Your task to perform on an android device: turn on bluetooth scan Image 0: 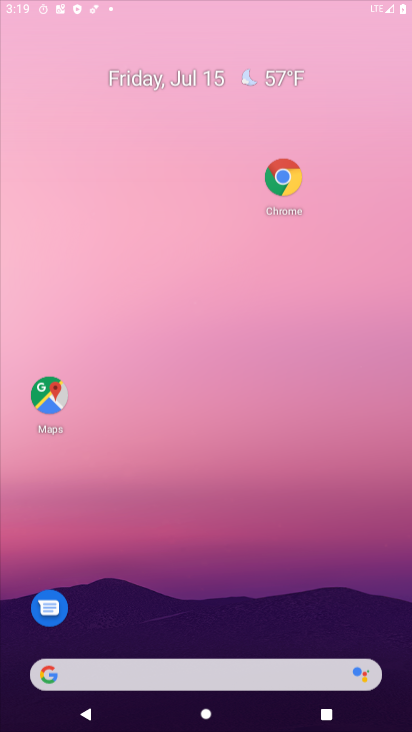
Step 0: press home button
Your task to perform on an android device: turn on bluetooth scan Image 1: 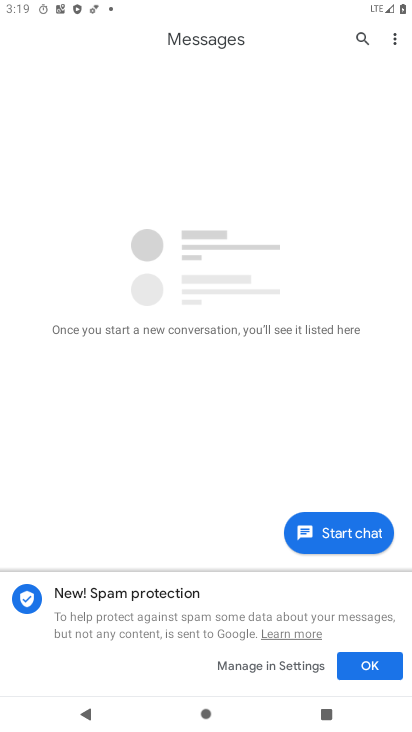
Step 1: click (216, 19)
Your task to perform on an android device: turn on bluetooth scan Image 2: 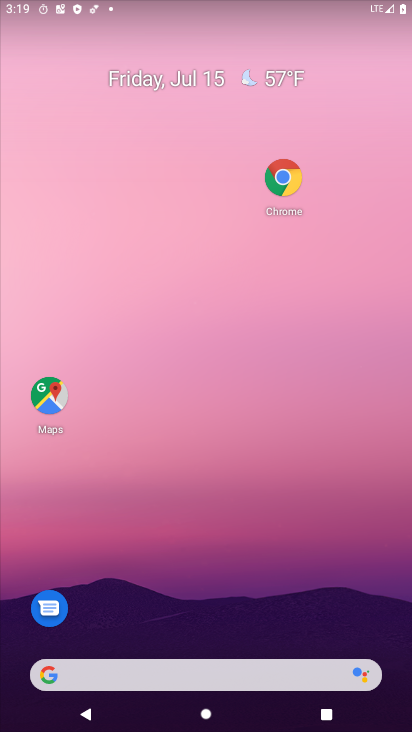
Step 2: drag from (250, 523) to (242, 61)
Your task to perform on an android device: turn on bluetooth scan Image 3: 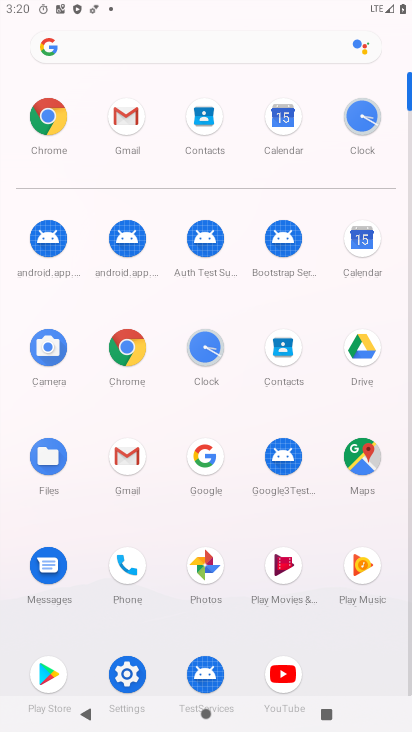
Step 3: click (139, 677)
Your task to perform on an android device: turn on bluetooth scan Image 4: 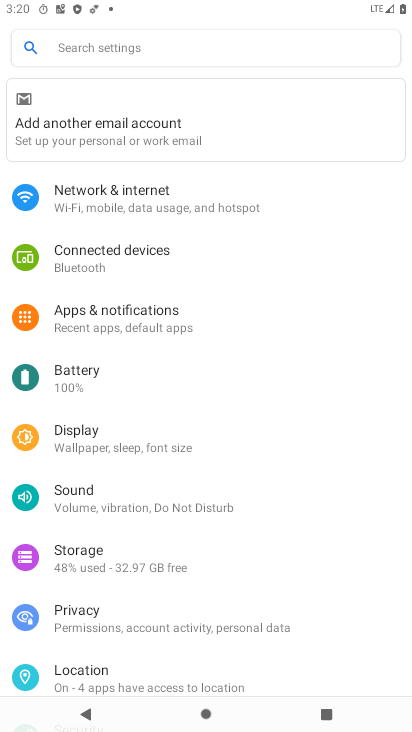
Step 4: drag from (139, 677) to (168, 372)
Your task to perform on an android device: turn on bluetooth scan Image 5: 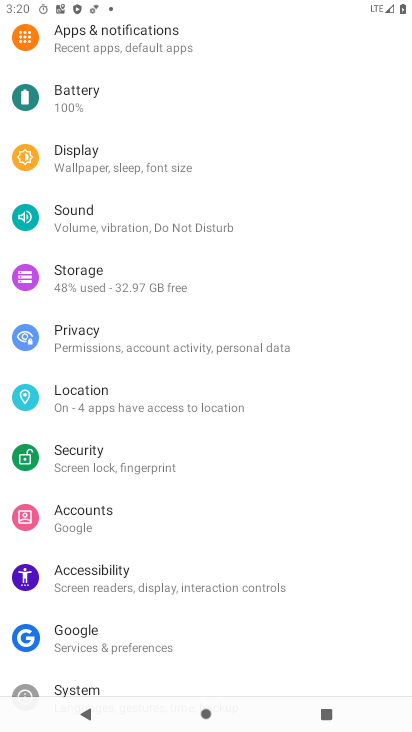
Step 5: click (89, 394)
Your task to perform on an android device: turn on bluetooth scan Image 6: 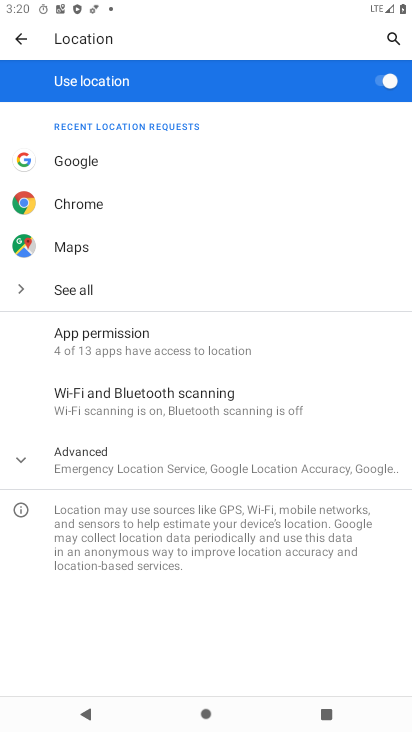
Step 6: click (128, 398)
Your task to perform on an android device: turn on bluetooth scan Image 7: 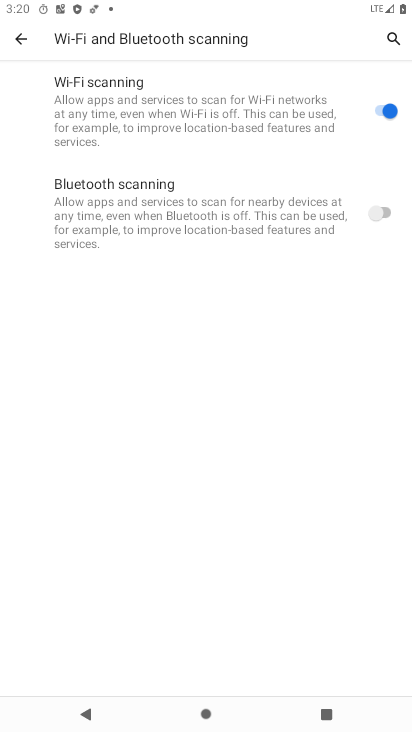
Step 7: click (192, 222)
Your task to perform on an android device: turn on bluetooth scan Image 8: 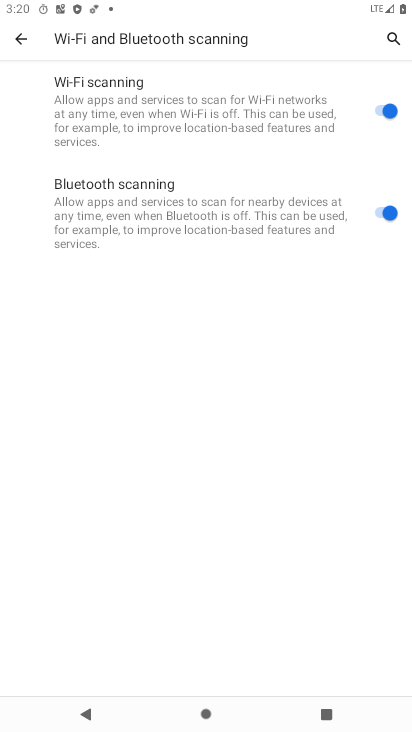
Step 8: task complete